Your task to perform on an android device: What is the news today? Image 0: 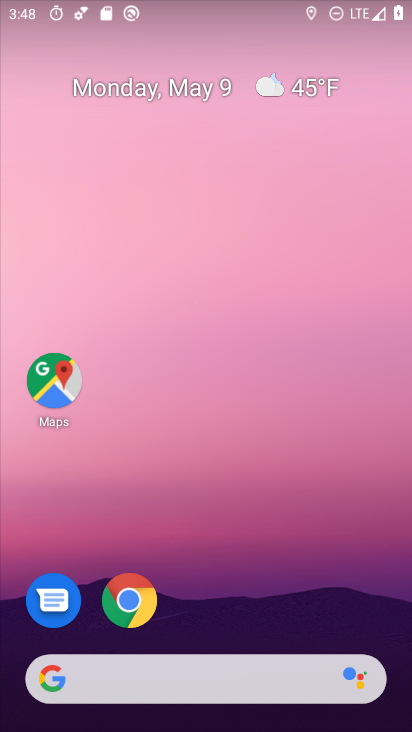
Step 0: click (274, 667)
Your task to perform on an android device: What is the news today? Image 1: 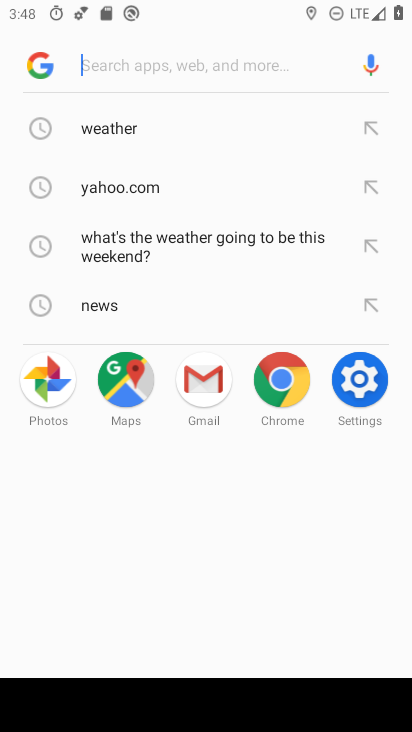
Step 1: type "news today"
Your task to perform on an android device: What is the news today? Image 2: 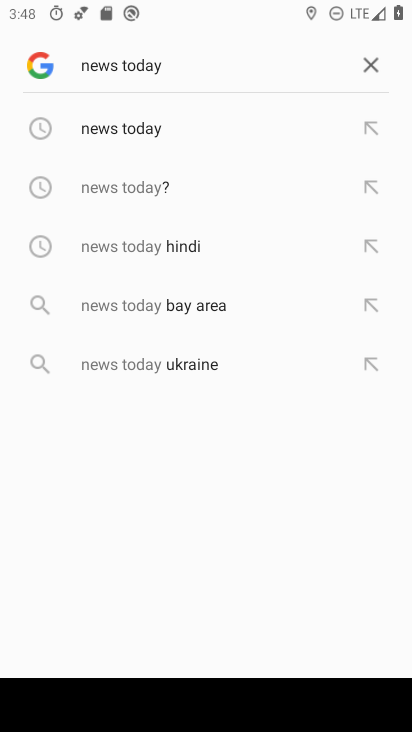
Step 2: click (149, 195)
Your task to perform on an android device: What is the news today? Image 3: 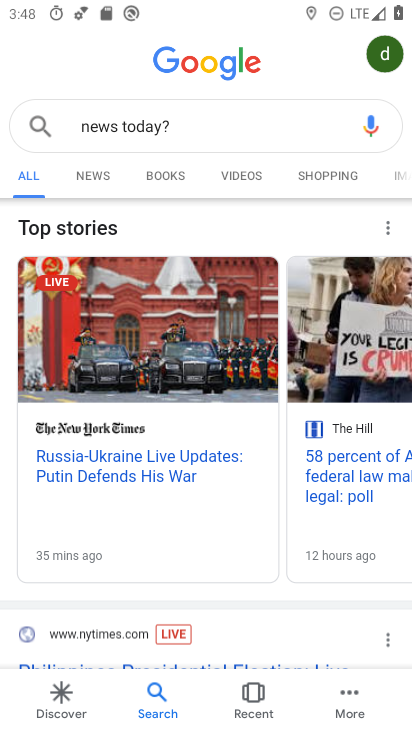
Step 3: task complete